Your task to perform on an android device: change timer sound Image 0: 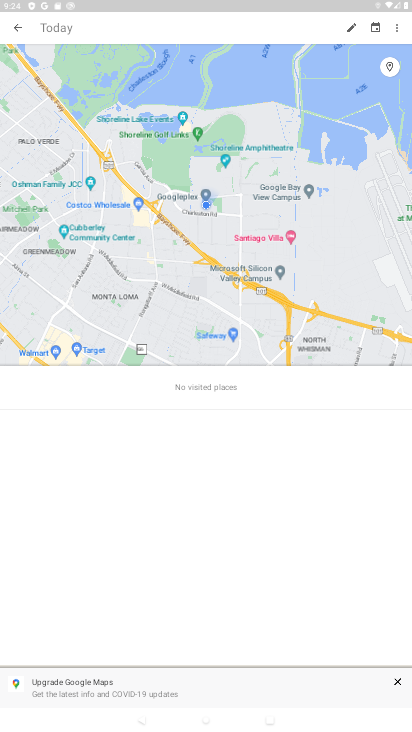
Step 0: press home button
Your task to perform on an android device: change timer sound Image 1: 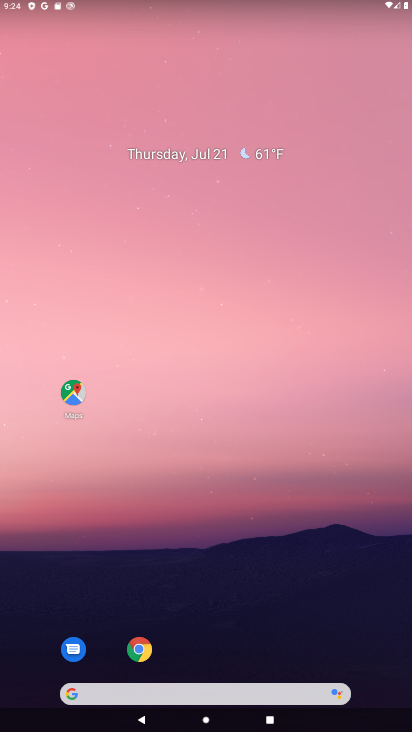
Step 1: drag from (211, 693) to (271, 150)
Your task to perform on an android device: change timer sound Image 2: 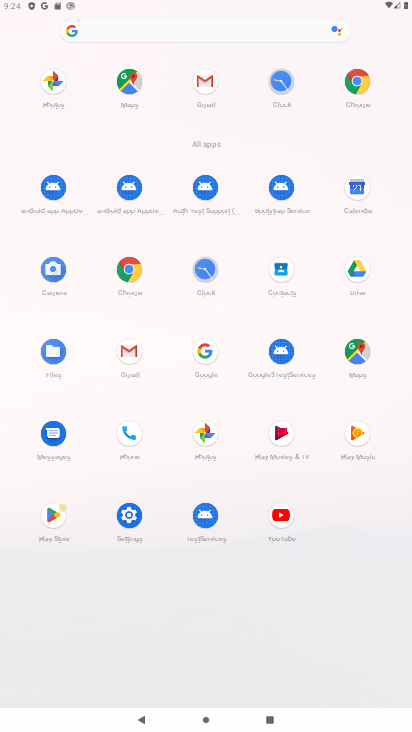
Step 2: click (281, 82)
Your task to perform on an android device: change timer sound Image 3: 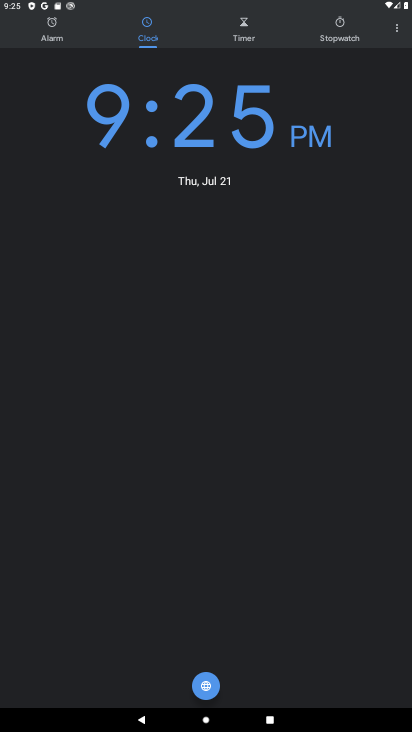
Step 3: click (397, 31)
Your task to perform on an android device: change timer sound Image 4: 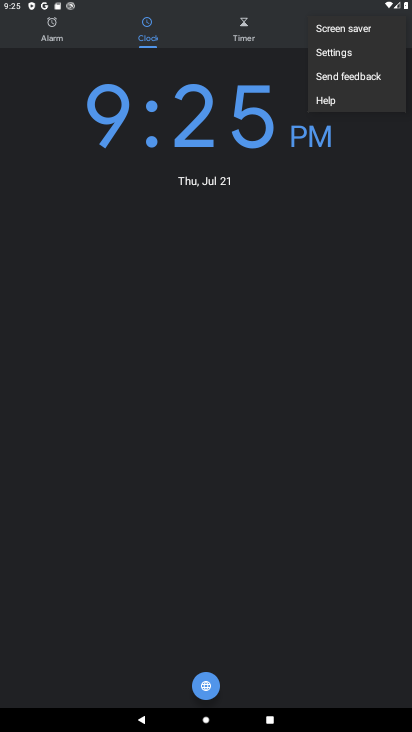
Step 4: click (340, 56)
Your task to perform on an android device: change timer sound Image 5: 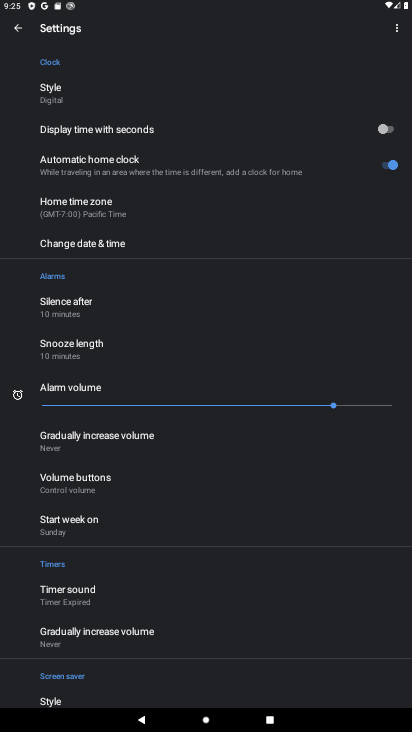
Step 5: click (66, 586)
Your task to perform on an android device: change timer sound Image 6: 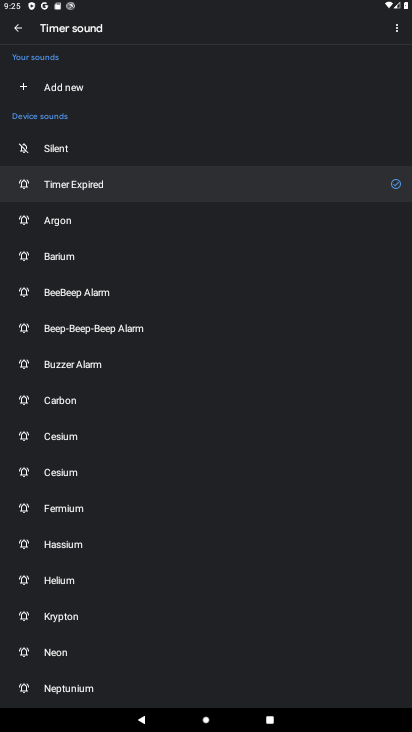
Step 6: click (74, 511)
Your task to perform on an android device: change timer sound Image 7: 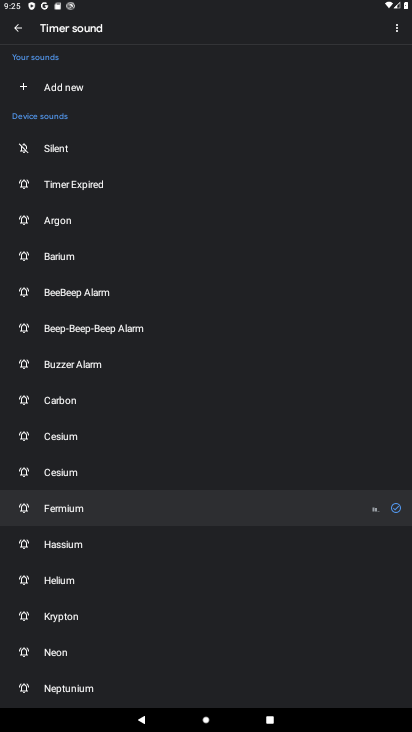
Step 7: task complete